Your task to perform on an android device: turn off picture-in-picture Image 0: 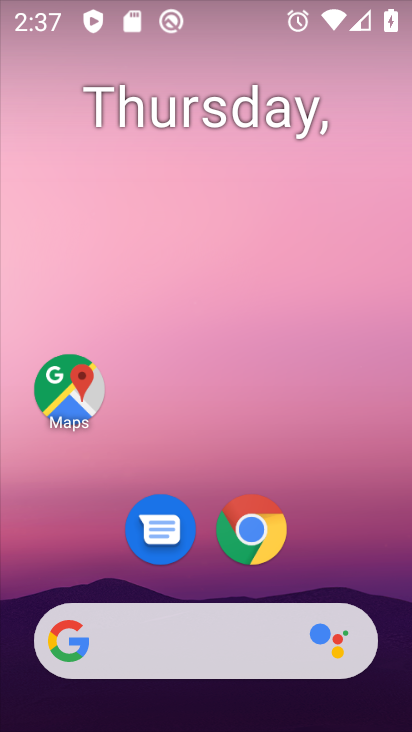
Step 0: click (247, 533)
Your task to perform on an android device: turn off picture-in-picture Image 1: 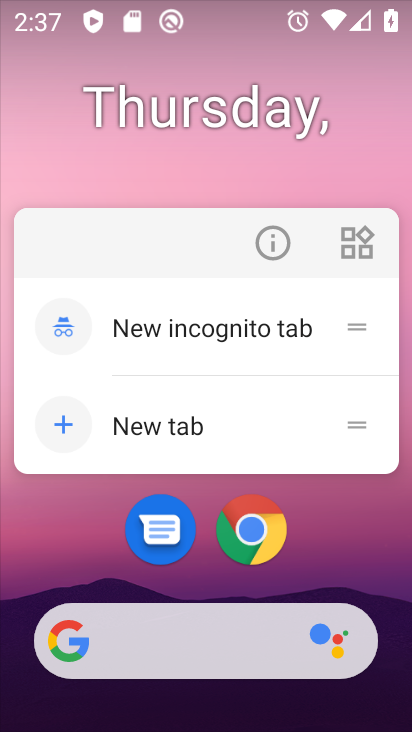
Step 1: click (269, 243)
Your task to perform on an android device: turn off picture-in-picture Image 2: 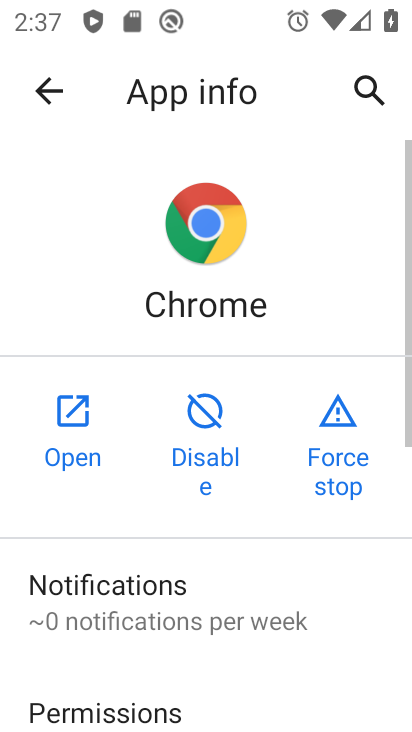
Step 2: drag from (230, 665) to (147, 8)
Your task to perform on an android device: turn off picture-in-picture Image 3: 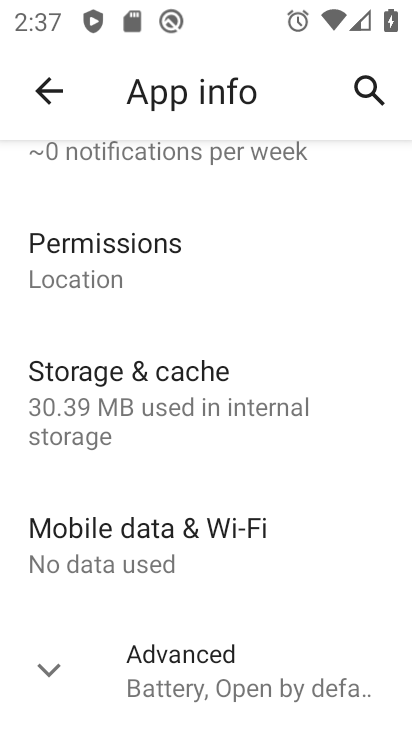
Step 3: drag from (238, 662) to (299, 16)
Your task to perform on an android device: turn off picture-in-picture Image 4: 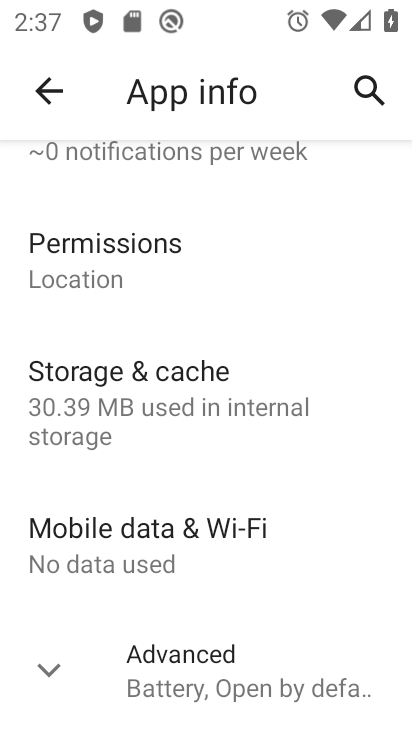
Step 4: click (216, 679)
Your task to perform on an android device: turn off picture-in-picture Image 5: 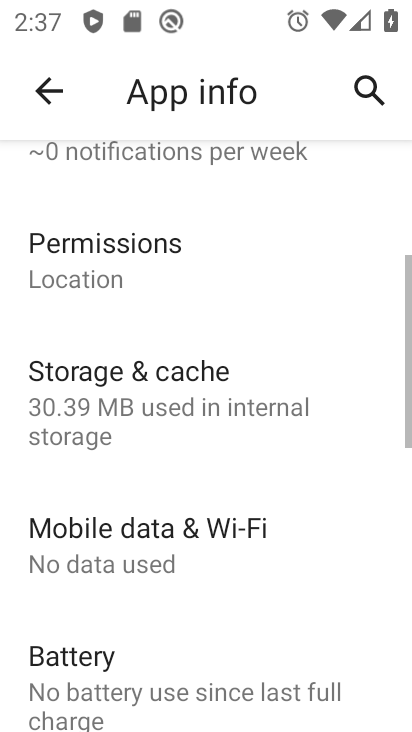
Step 5: drag from (226, 587) to (53, 22)
Your task to perform on an android device: turn off picture-in-picture Image 6: 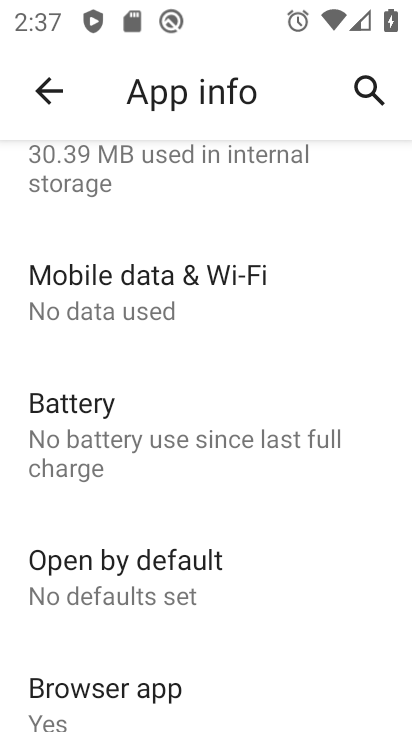
Step 6: drag from (234, 712) to (127, 41)
Your task to perform on an android device: turn off picture-in-picture Image 7: 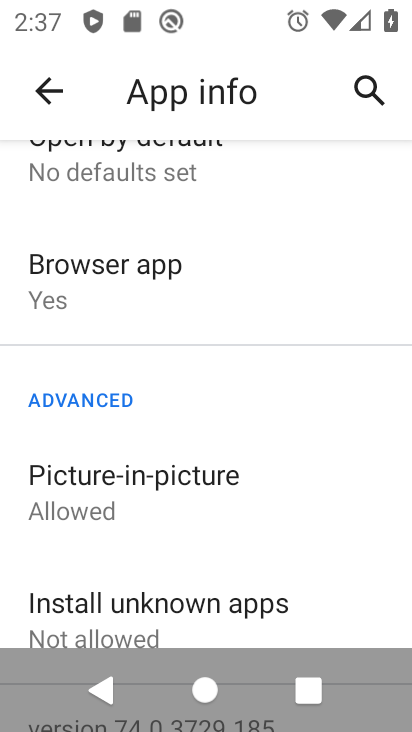
Step 7: click (149, 518)
Your task to perform on an android device: turn off picture-in-picture Image 8: 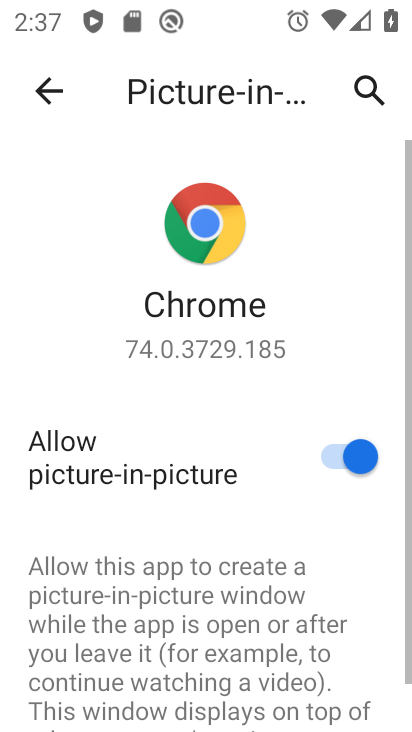
Step 8: click (349, 456)
Your task to perform on an android device: turn off picture-in-picture Image 9: 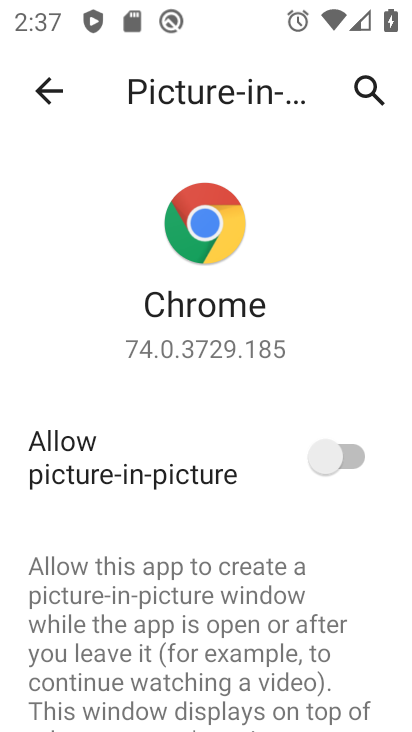
Step 9: task complete